Your task to perform on an android device: find photos in the google photos app Image 0: 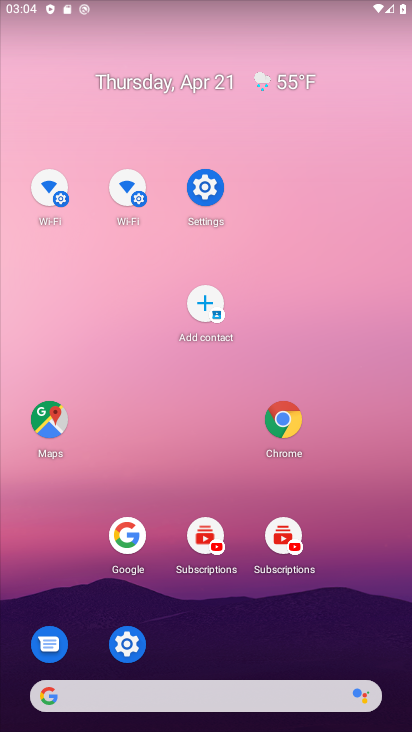
Step 0: drag from (225, 662) to (148, 390)
Your task to perform on an android device: find photos in the google photos app Image 1: 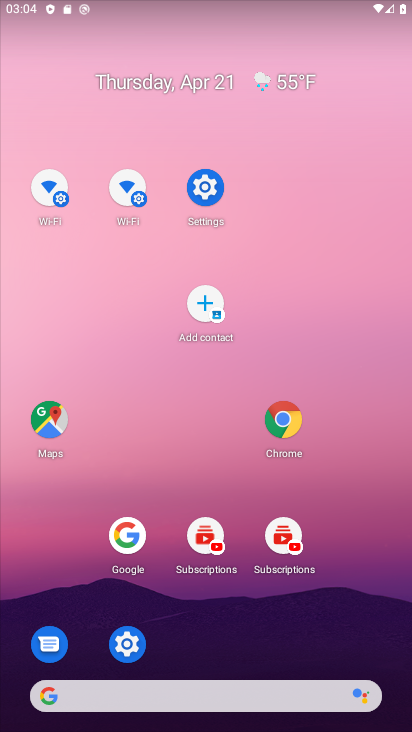
Step 1: drag from (287, 639) to (176, 220)
Your task to perform on an android device: find photos in the google photos app Image 2: 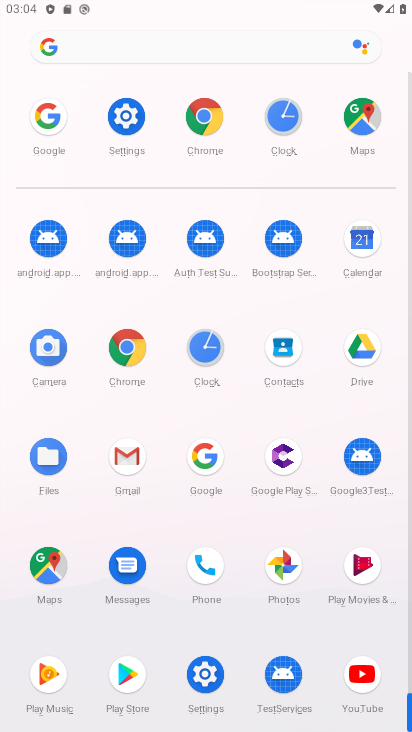
Step 2: click (283, 573)
Your task to perform on an android device: find photos in the google photos app Image 3: 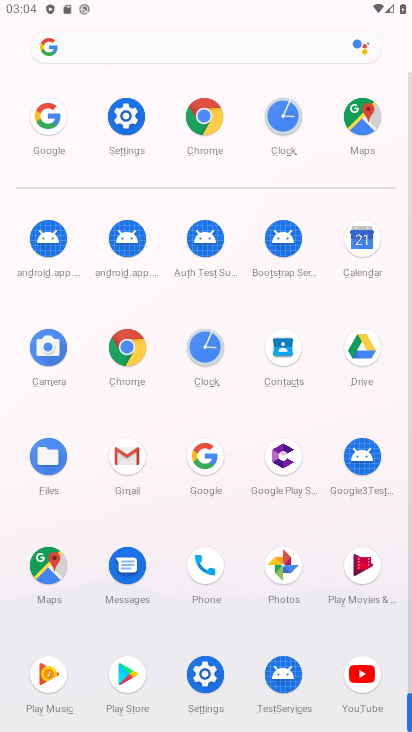
Step 3: click (283, 573)
Your task to perform on an android device: find photos in the google photos app Image 4: 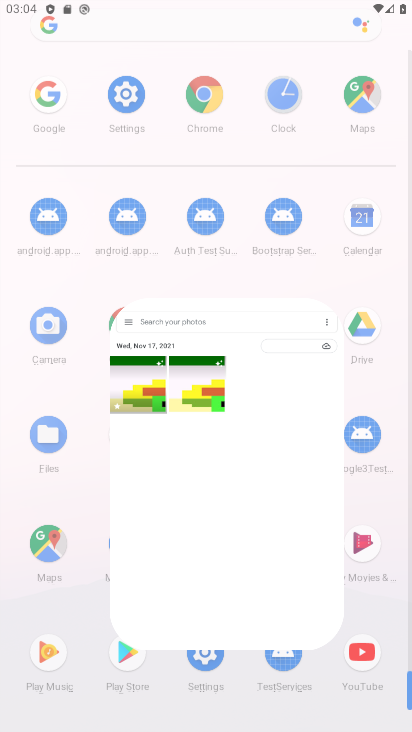
Step 4: click (279, 573)
Your task to perform on an android device: find photos in the google photos app Image 5: 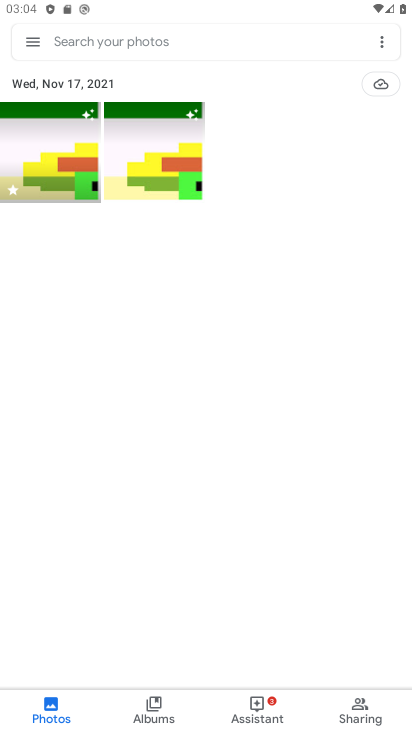
Step 5: press home button
Your task to perform on an android device: find photos in the google photos app Image 6: 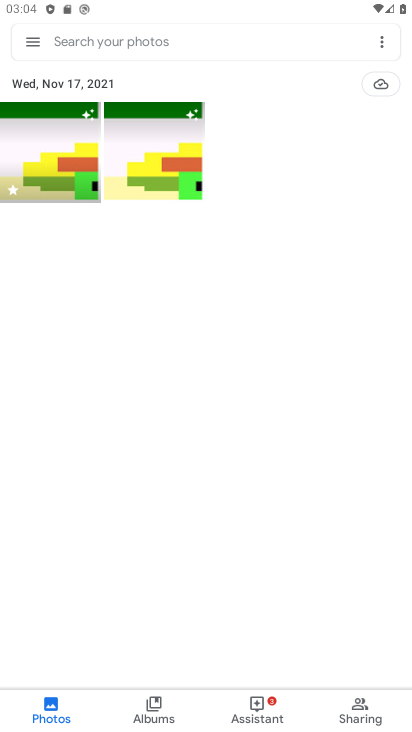
Step 6: press home button
Your task to perform on an android device: find photos in the google photos app Image 7: 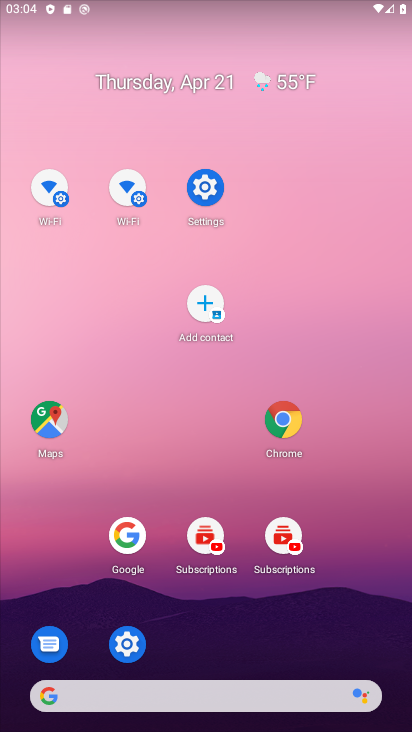
Step 7: drag from (287, 703) to (130, 208)
Your task to perform on an android device: find photos in the google photos app Image 8: 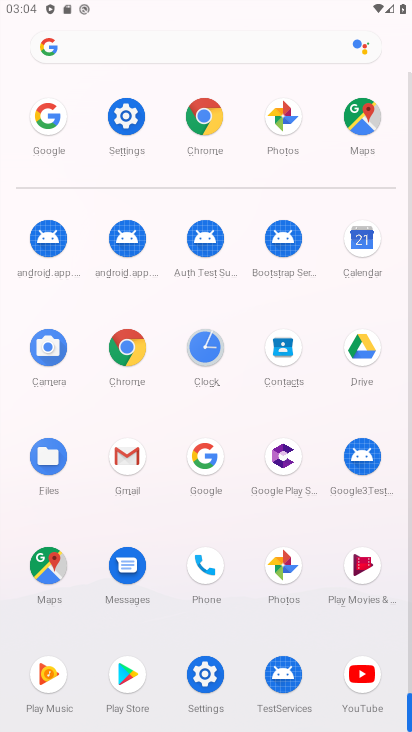
Step 8: click (281, 562)
Your task to perform on an android device: find photos in the google photos app Image 9: 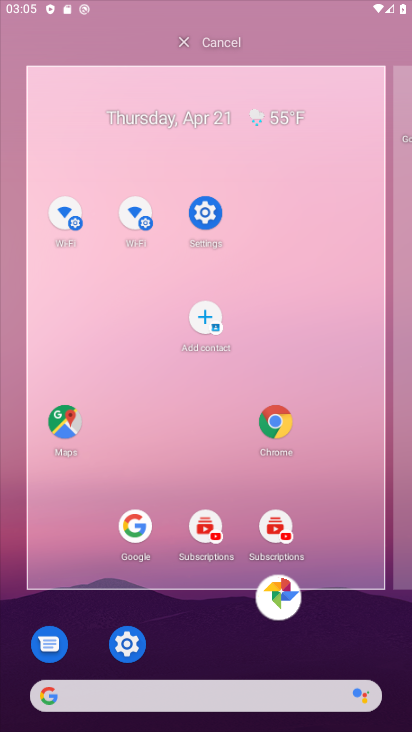
Step 9: click (286, 569)
Your task to perform on an android device: find photos in the google photos app Image 10: 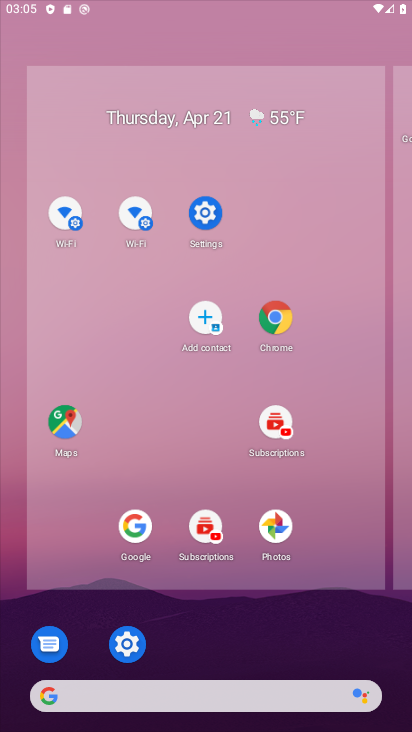
Step 10: click (287, 568)
Your task to perform on an android device: find photos in the google photos app Image 11: 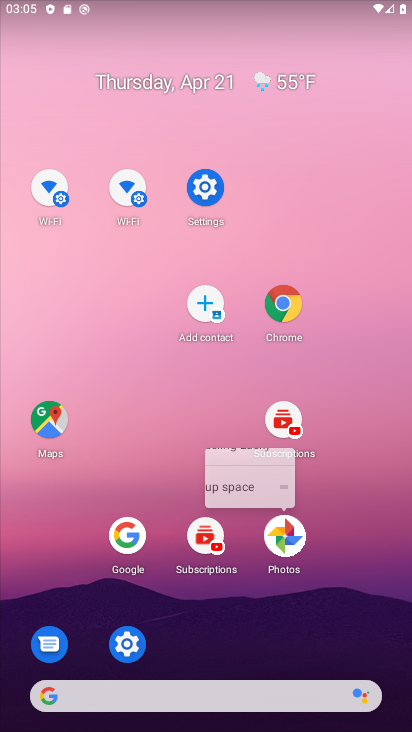
Step 11: click (278, 525)
Your task to perform on an android device: find photos in the google photos app Image 12: 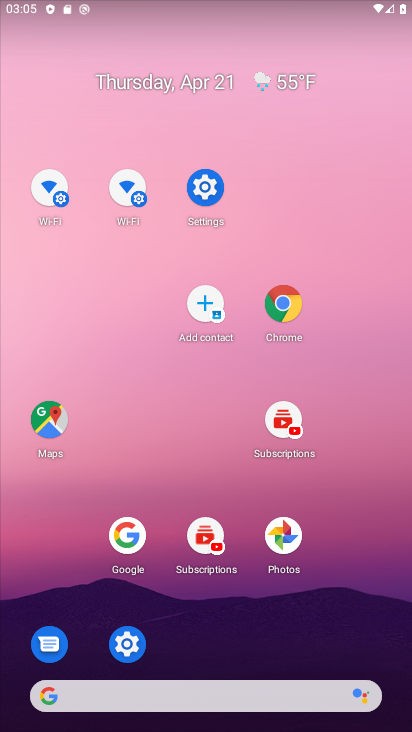
Step 12: drag from (276, 619) to (130, 195)
Your task to perform on an android device: find photos in the google photos app Image 13: 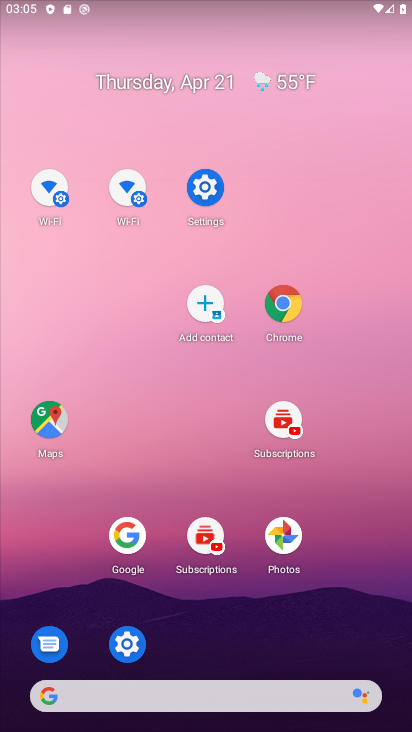
Step 13: drag from (241, 497) to (120, 148)
Your task to perform on an android device: find photos in the google photos app Image 14: 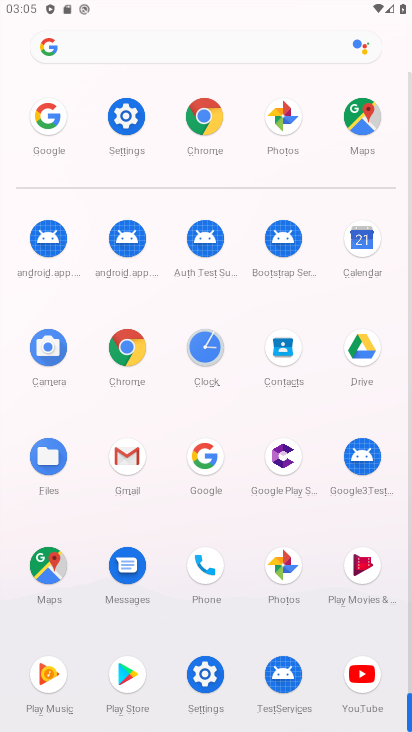
Step 14: drag from (317, 579) to (145, 152)
Your task to perform on an android device: find photos in the google photos app Image 15: 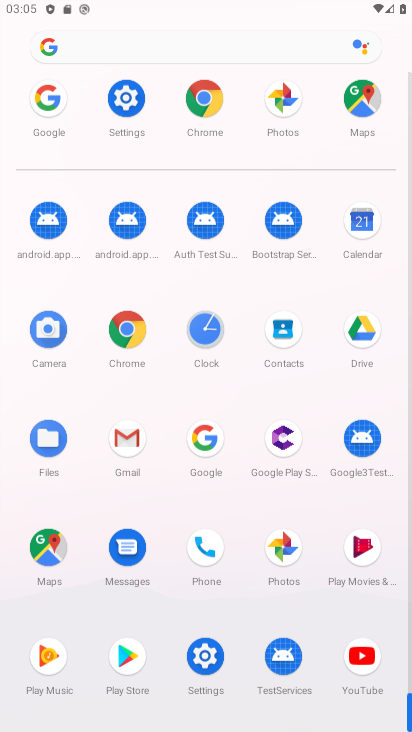
Step 15: drag from (232, 188) to (216, 69)
Your task to perform on an android device: find photos in the google photos app Image 16: 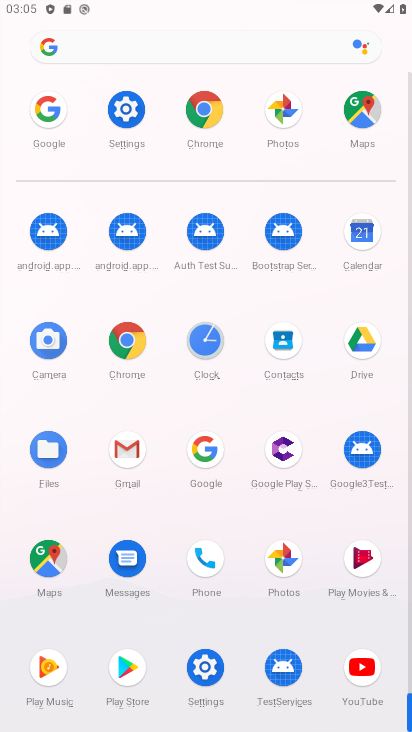
Step 16: drag from (186, 363) to (91, 67)
Your task to perform on an android device: find photos in the google photos app Image 17: 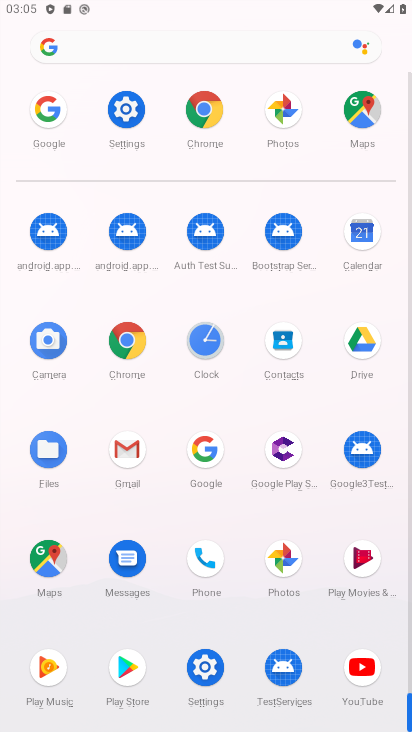
Step 17: drag from (278, 581) to (123, 100)
Your task to perform on an android device: find photos in the google photos app Image 18: 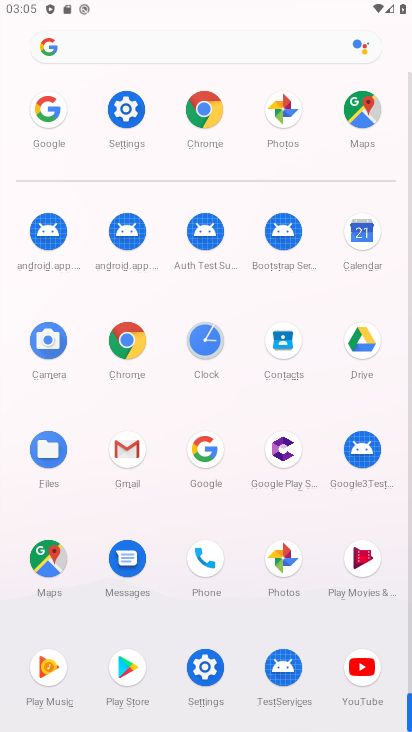
Step 18: drag from (235, 513) to (114, 55)
Your task to perform on an android device: find photos in the google photos app Image 19: 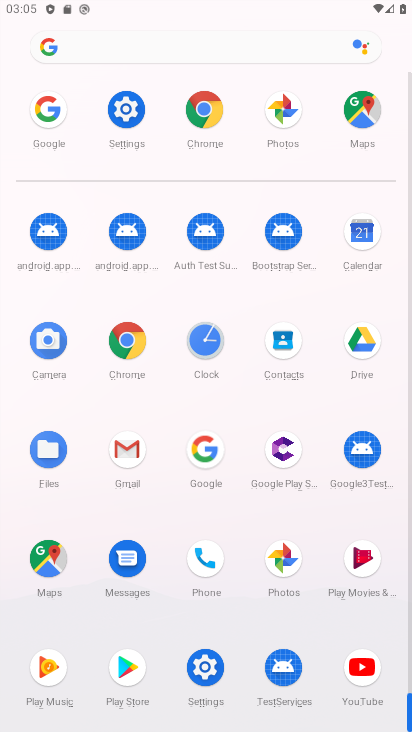
Step 19: drag from (282, 521) to (193, 68)
Your task to perform on an android device: find photos in the google photos app Image 20: 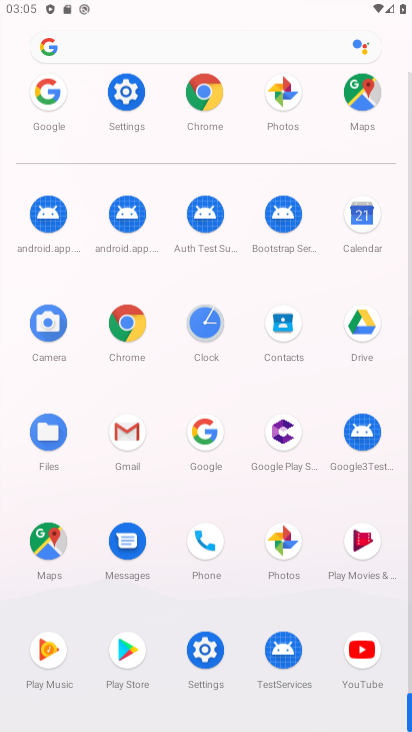
Step 20: drag from (272, 280) to (277, 13)
Your task to perform on an android device: find photos in the google photos app Image 21: 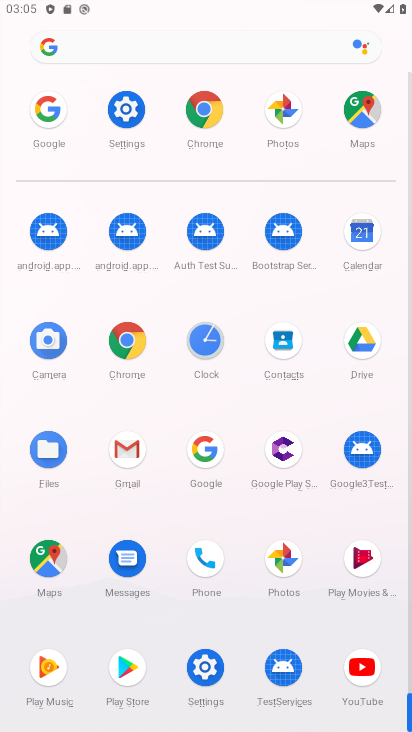
Step 21: click (289, 565)
Your task to perform on an android device: find photos in the google photos app Image 22: 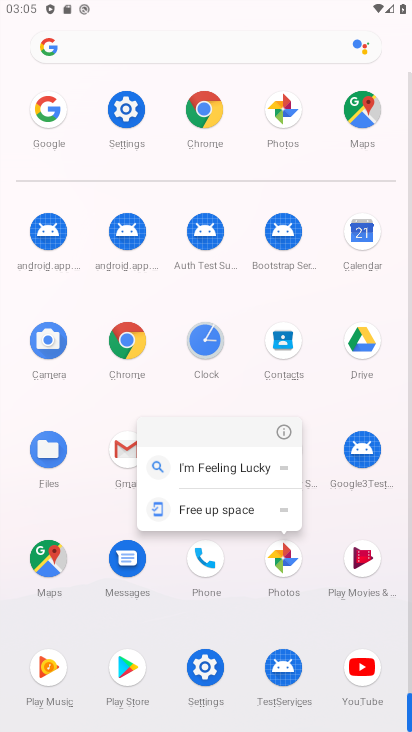
Step 22: click (283, 563)
Your task to perform on an android device: find photos in the google photos app Image 23: 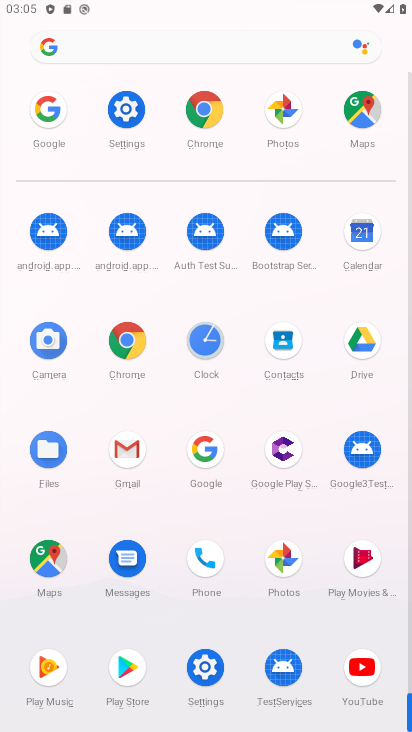
Step 23: click (281, 566)
Your task to perform on an android device: find photos in the google photos app Image 24: 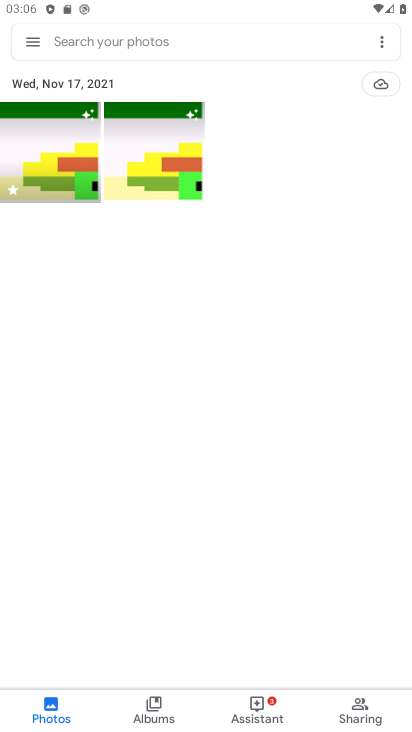
Step 24: task complete